Your task to perform on an android device: Go to location settings Image 0: 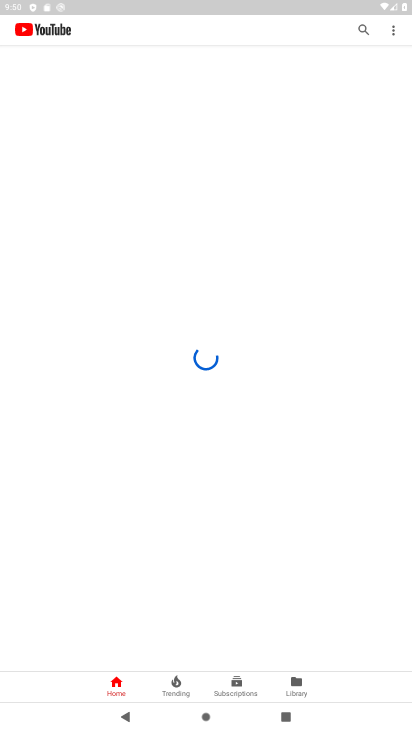
Step 0: press home button
Your task to perform on an android device: Go to location settings Image 1: 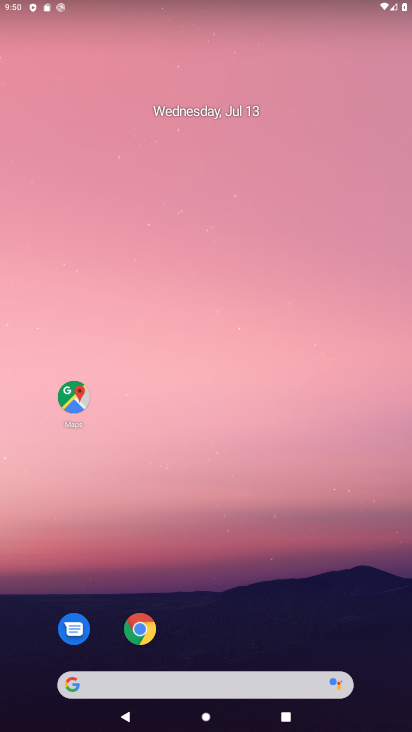
Step 1: drag from (221, 643) to (255, 118)
Your task to perform on an android device: Go to location settings Image 2: 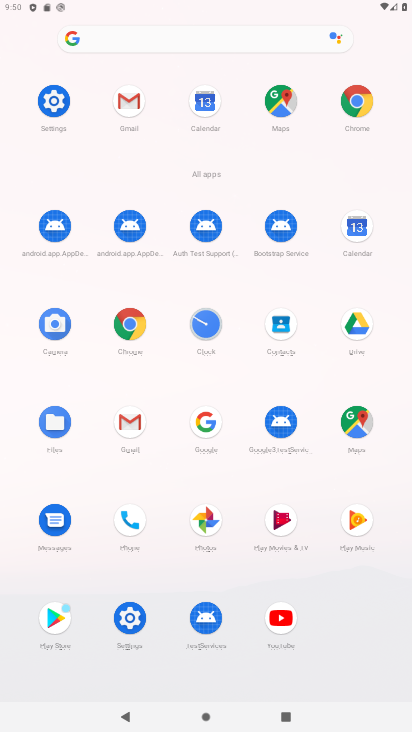
Step 2: click (53, 95)
Your task to perform on an android device: Go to location settings Image 3: 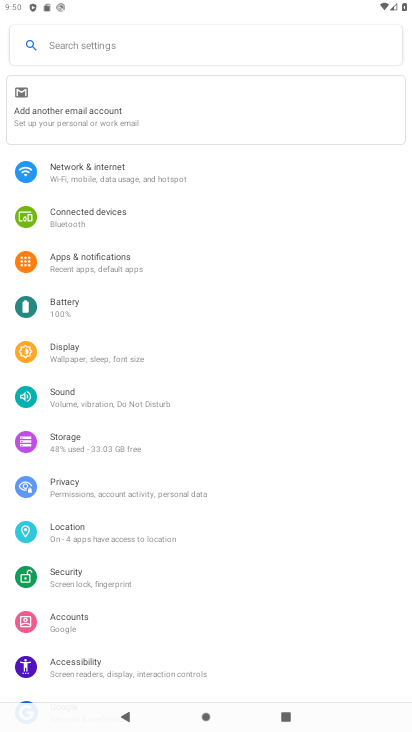
Step 3: click (102, 526)
Your task to perform on an android device: Go to location settings Image 4: 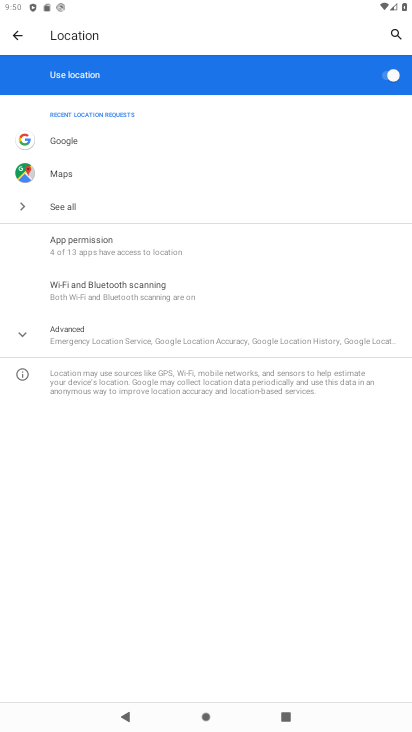
Step 4: click (20, 330)
Your task to perform on an android device: Go to location settings Image 5: 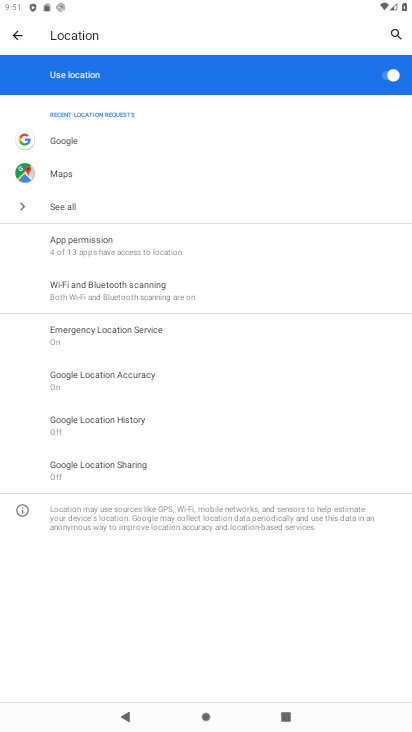
Step 5: task complete